Your task to perform on an android device: Go to wifi settings Image 0: 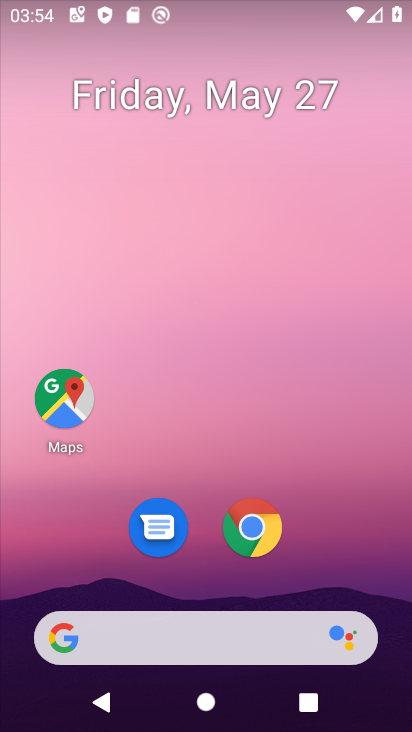
Step 0: drag from (202, 4) to (229, 429)
Your task to perform on an android device: Go to wifi settings Image 1: 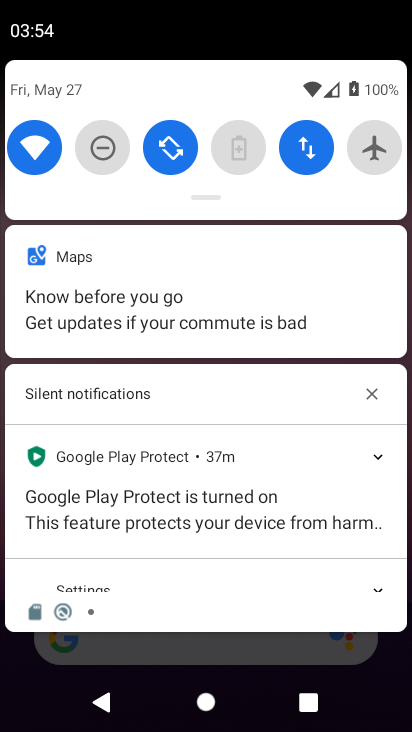
Step 1: click (21, 159)
Your task to perform on an android device: Go to wifi settings Image 2: 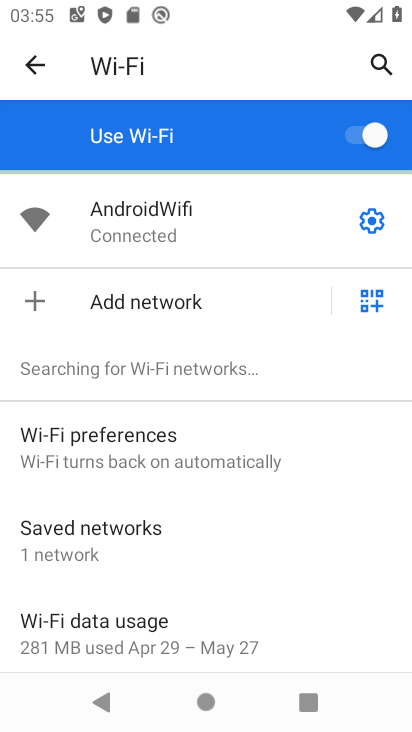
Step 2: task complete